Your task to perform on an android device: Do I have any events today? Image 0: 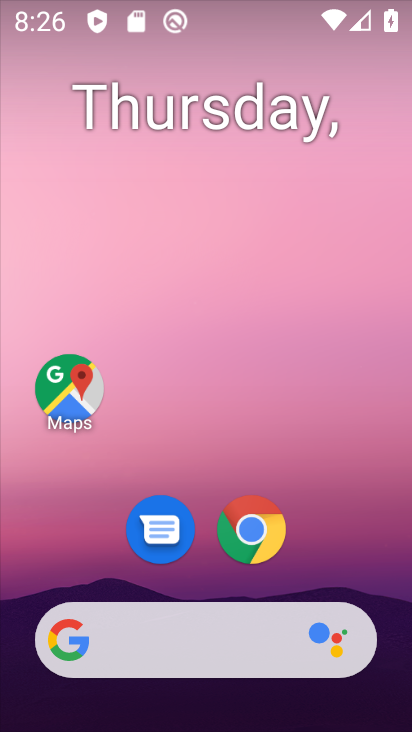
Step 0: drag from (342, 510) to (294, 72)
Your task to perform on an android device: Do I have any events today? Image 1: 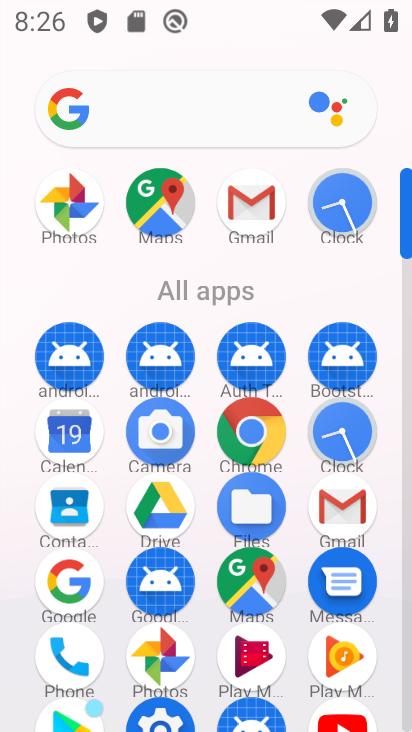
Step 1: click (67, 433)
Your task to perform on an android device: Do I have any events today? Image 2: 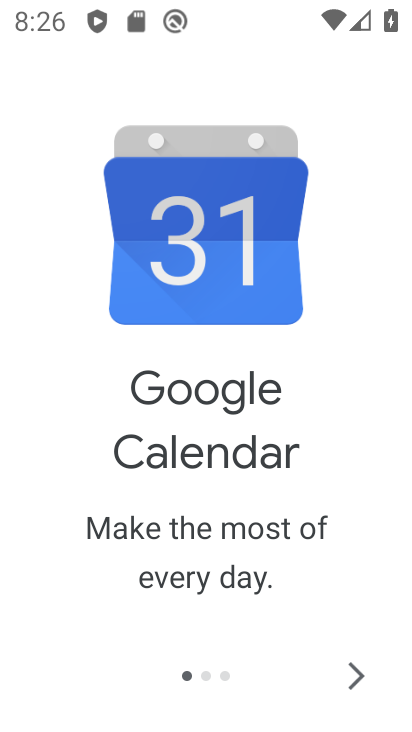
Step 2: click (361, 670)
Your task to perform on an android device: Do I have any events today? Image 3: 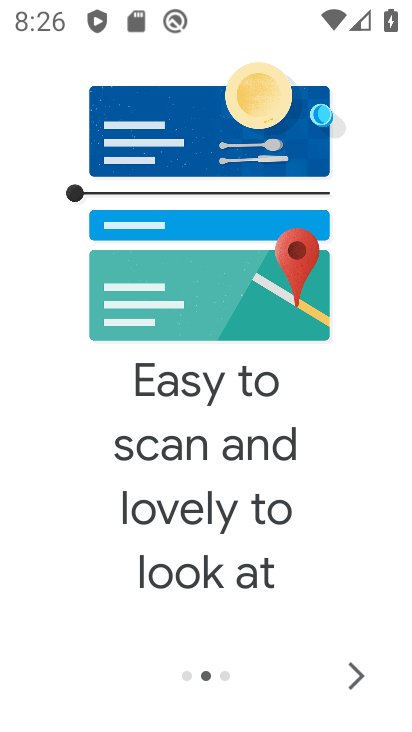
Step 3: click (361, 670)
Your task to perform on an android device: Do I have any events today? Image 4: 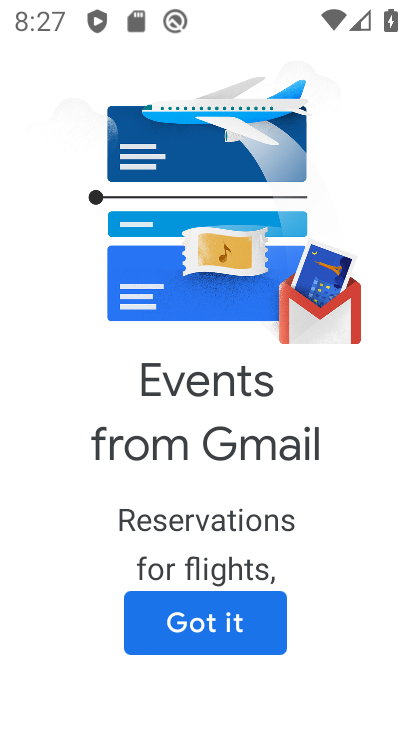
Step 4: click (214, 614)
Your task to perform on an android device: Do I have any events today? Image 5: 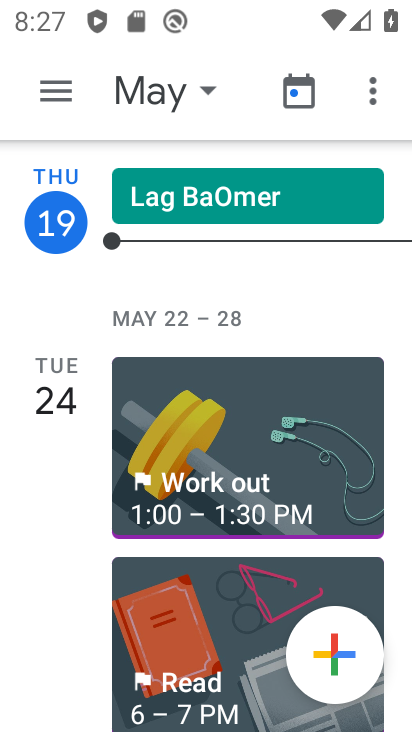
Step 5: click (227, 183)
Your task to perform on an android device: Do I have any events today? Image 6: 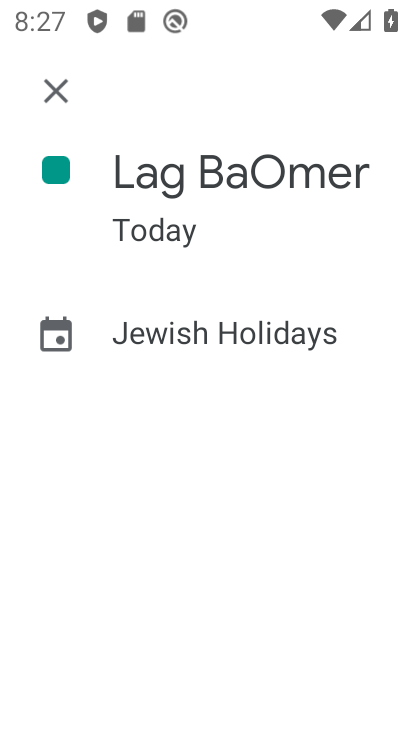
Step 6: task complete